Your task to perform on an android device: toggle notification dots Image 0: 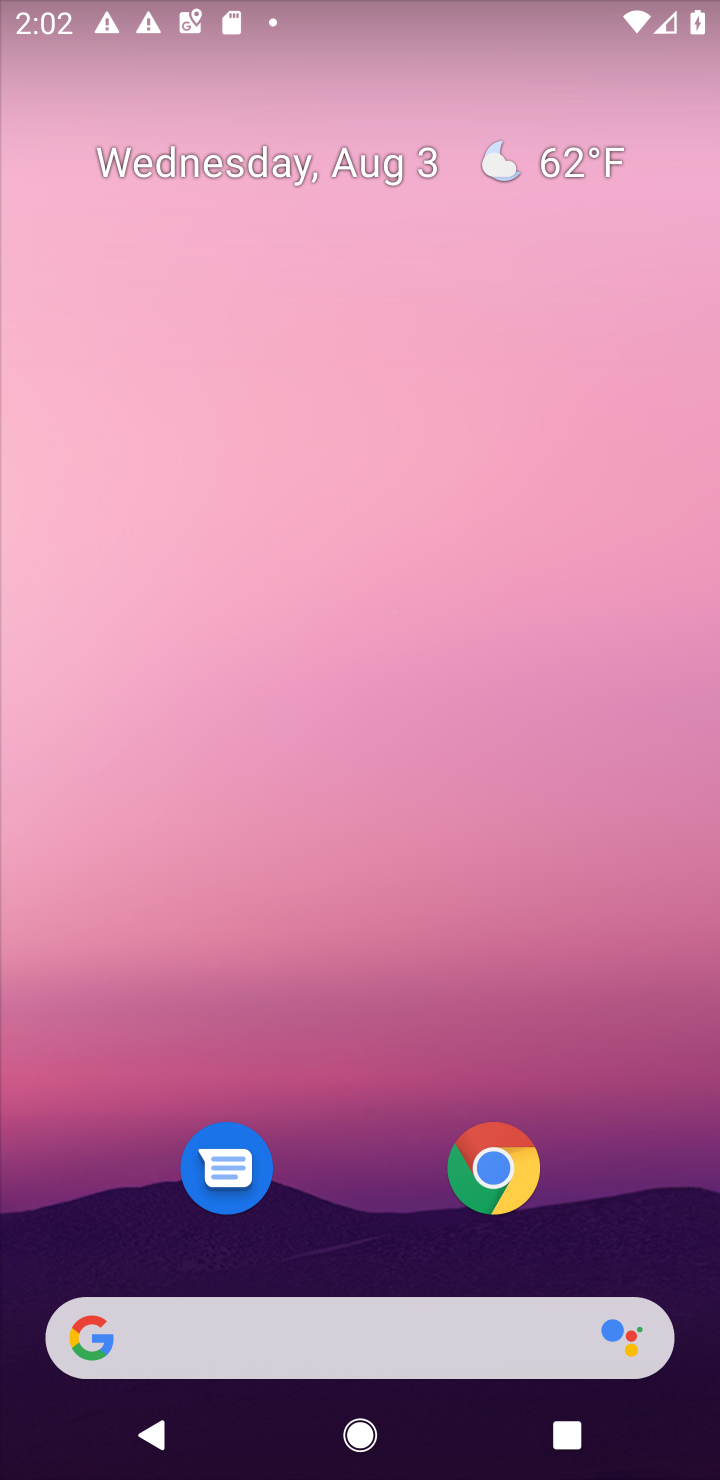
Step 0: drag from (650, 1249) to (595, 306)
Your task to perform on an android device: toggle notification dots Image 1: 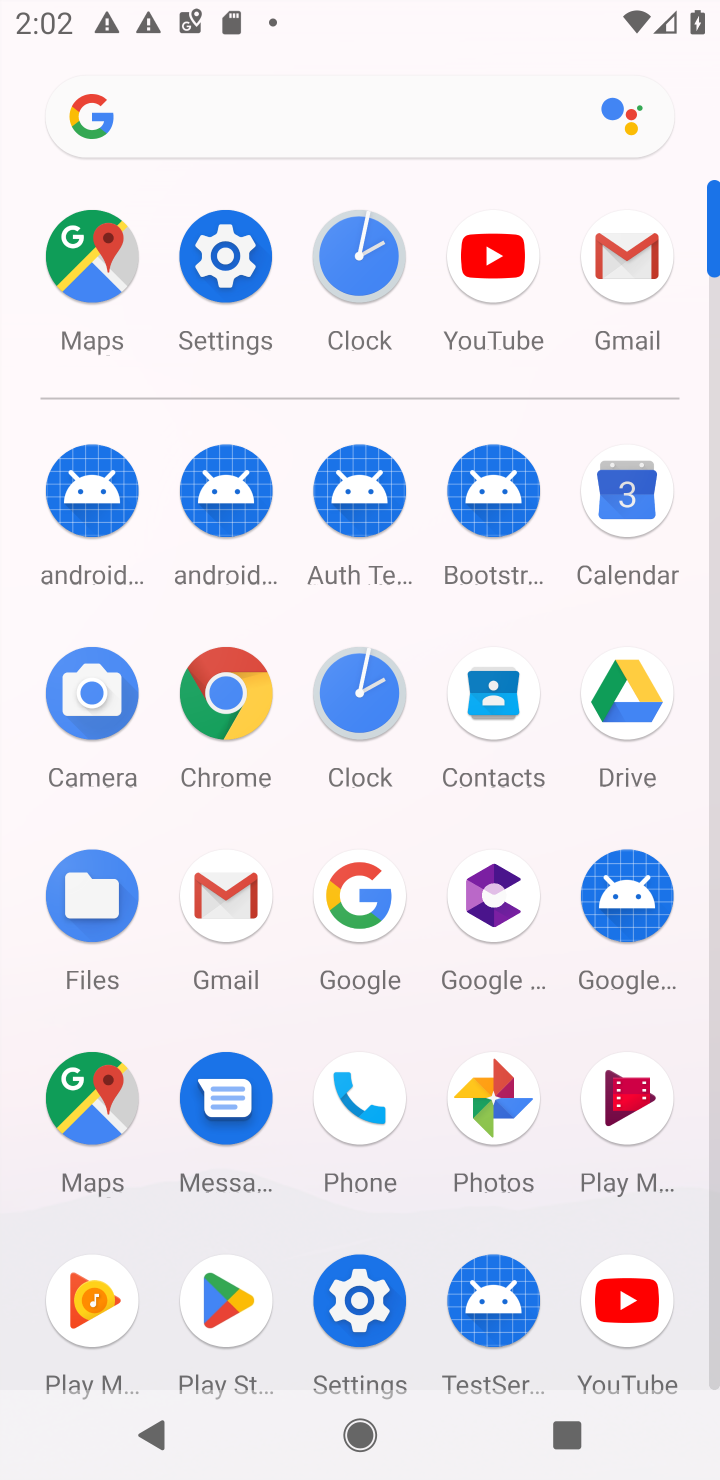
Step 1: click (365, 1303)
Your task to perform on an android device: toggle notification dots Image 2: 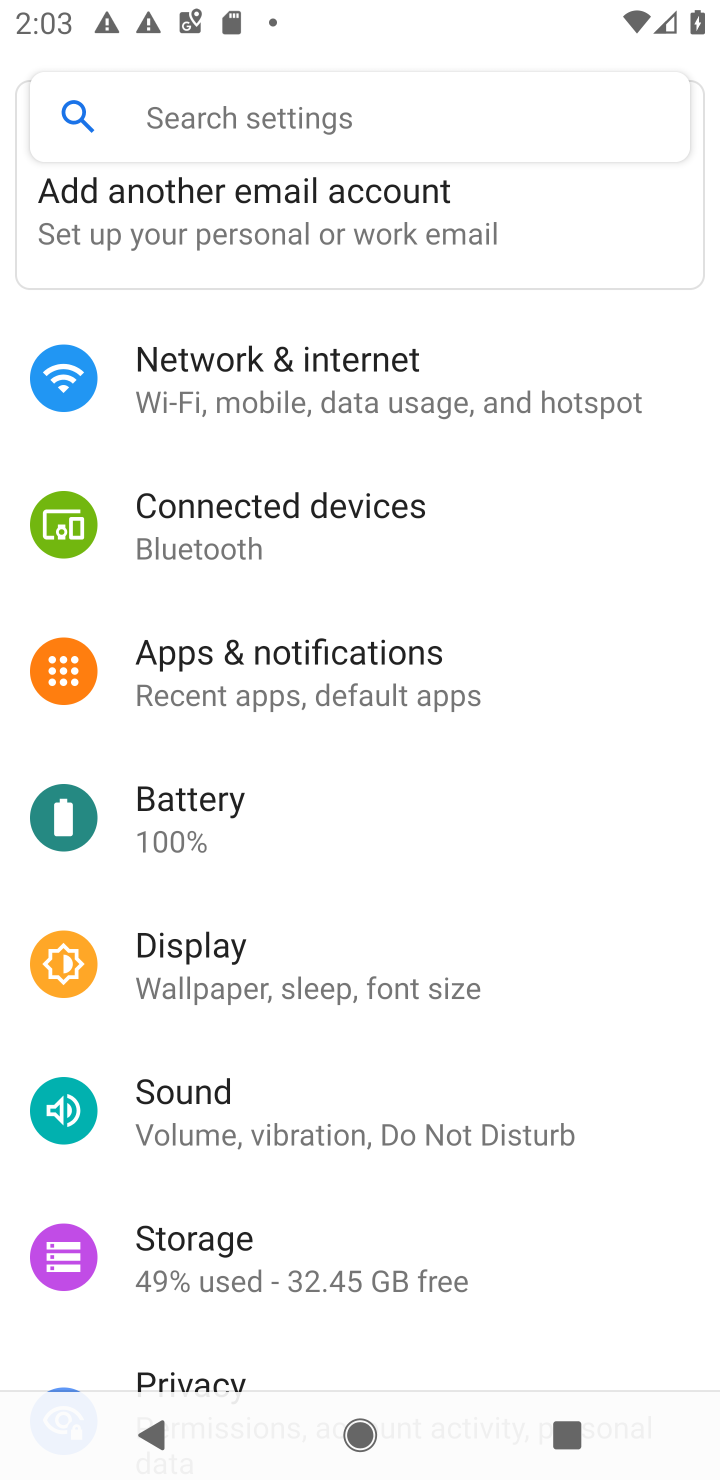
Step 2: click (236, 665)
Your task to perform on an android device: toggle notification dots Image 3: 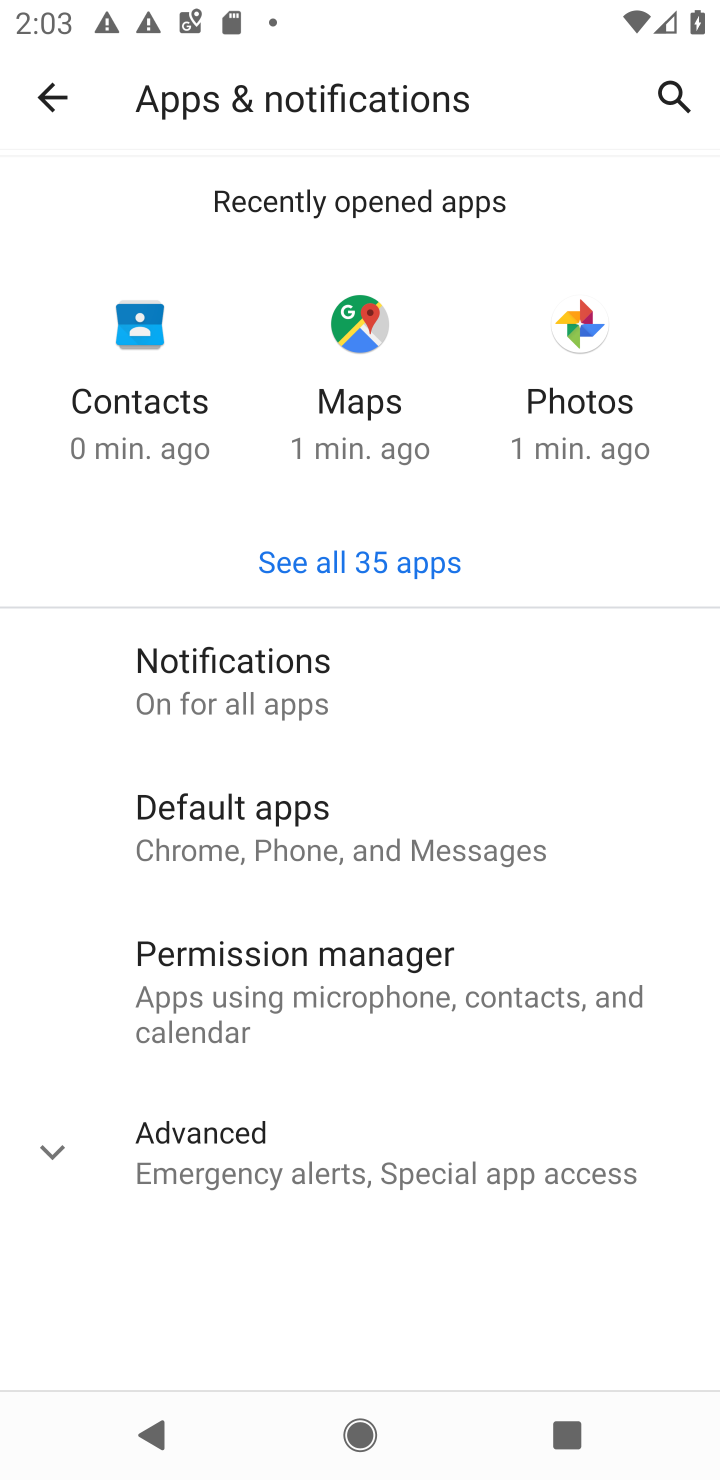
Step 3: click (236, 665)
Your task to perform on an android device: toggle notification dots Image 4: 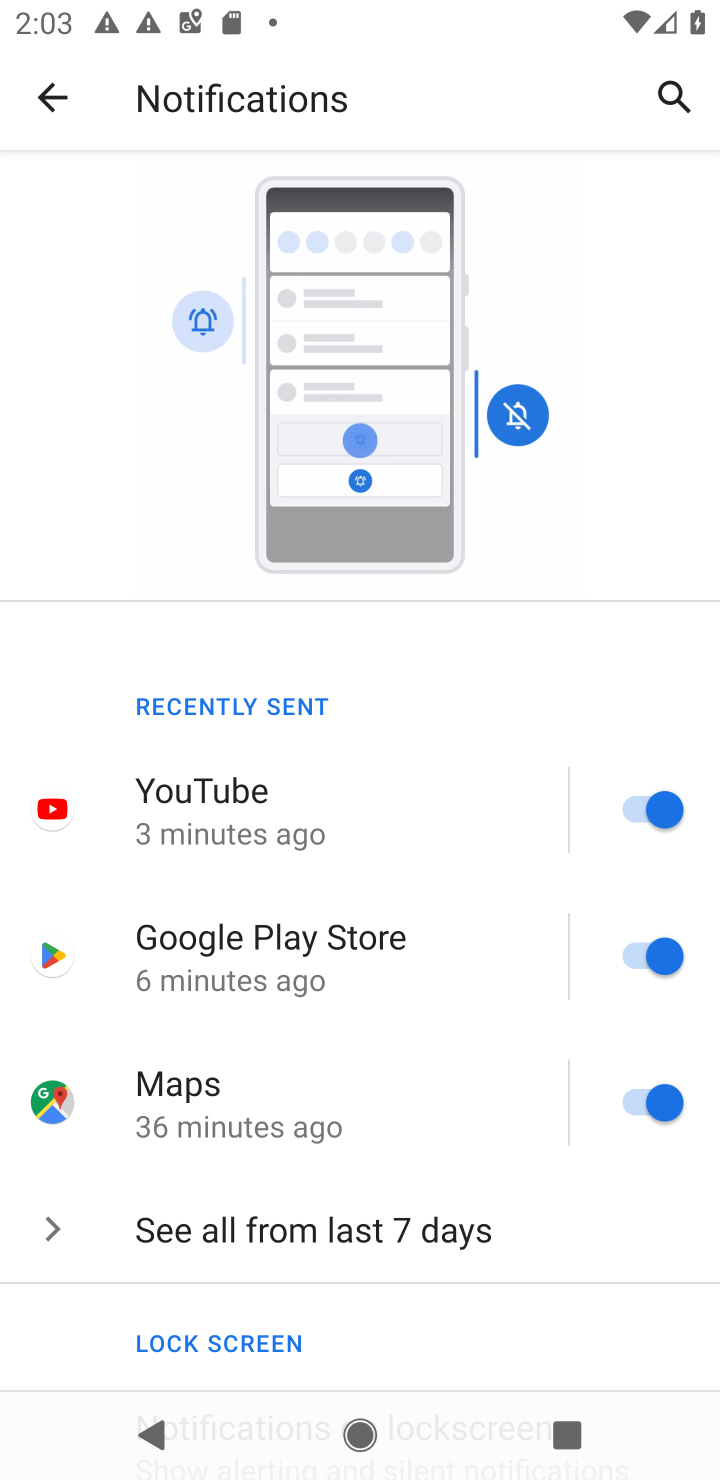
Step 4: drag from (540, 1252) to (573, 407)
Your task to perform on an android device: toggle notification dots Image 5: 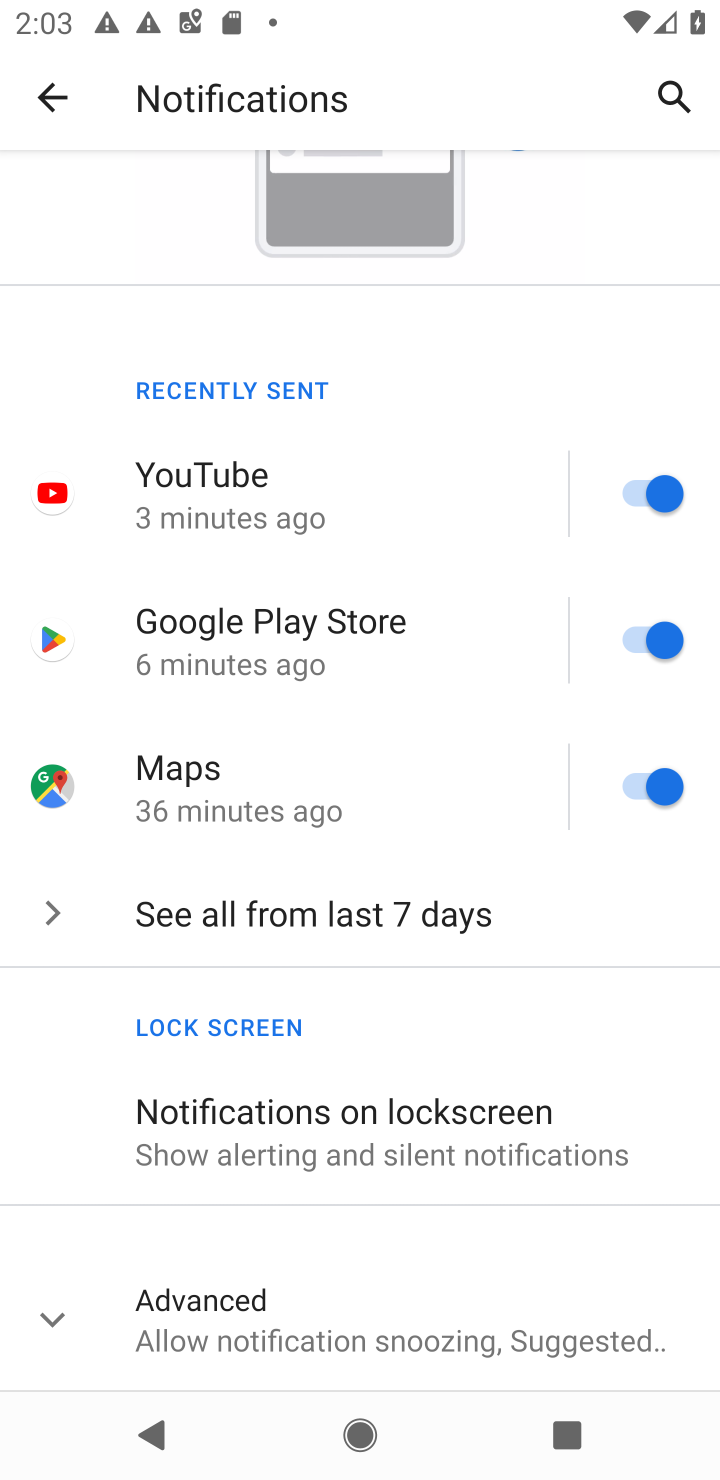
Step 5: click (60, 1318)
Your task to perform on an android device: toggle notification dots Image 6: 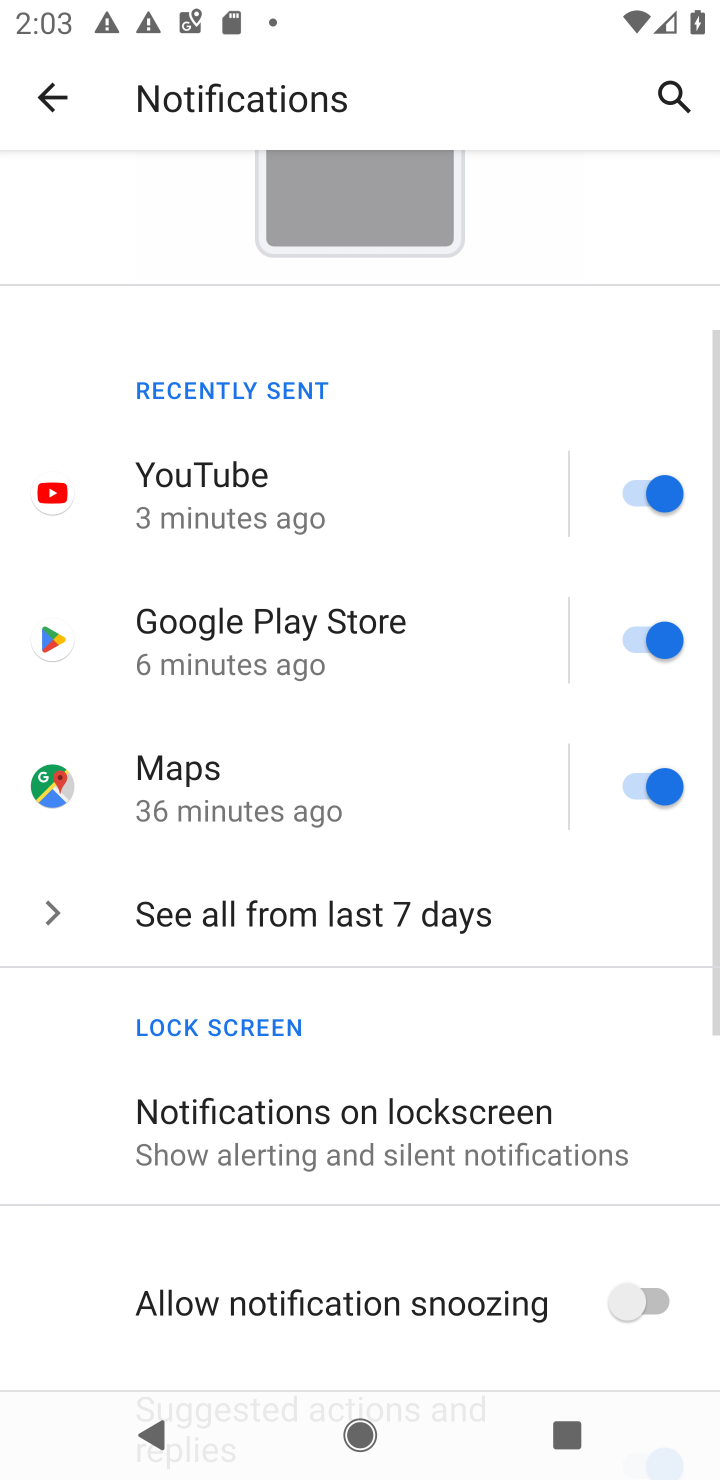
Step 6: drag from (572, 1313) to (562, 460)
Your task to perform on an android device: toggle notification dots Image 7: 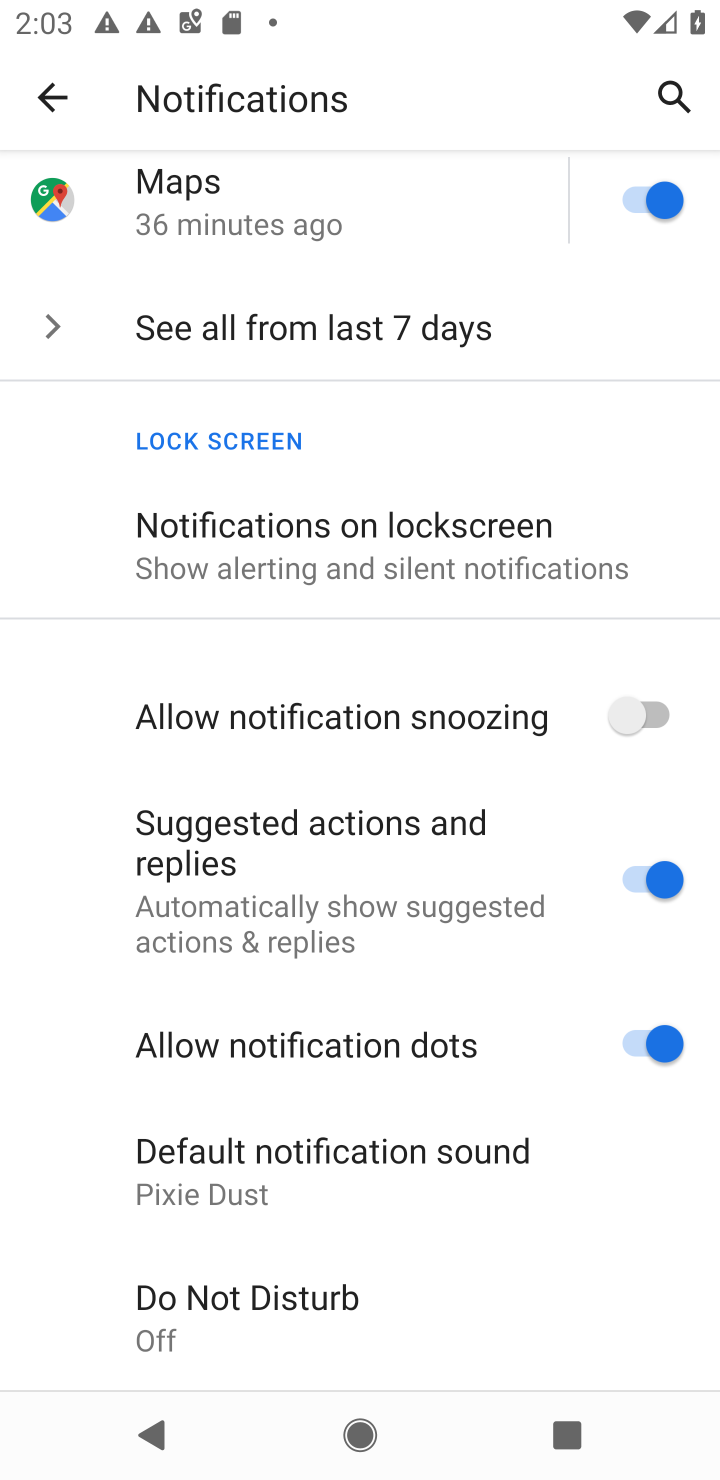
Step 7: click (634, 1041)
Your task to perform on an android device: toggle notification dots Image 8: 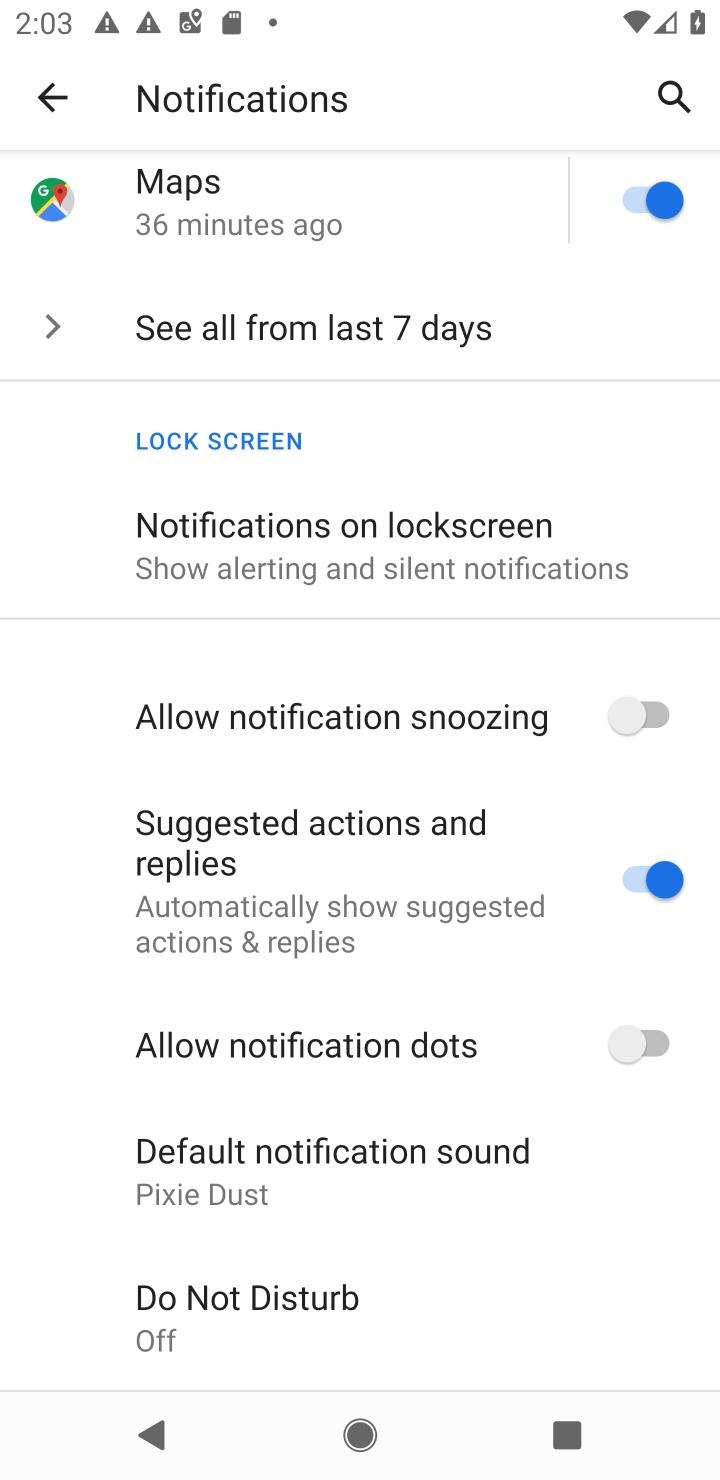
Step 8: task complete